Your task to perform on an android device: Open Yahoo.com Image 0: 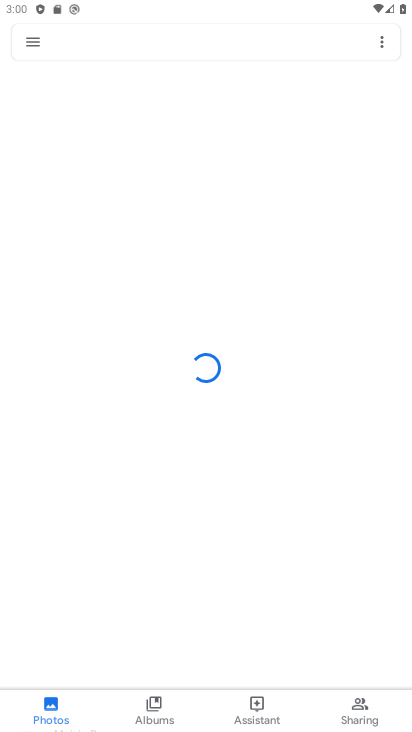
Step 0: press home button
Your task to perform on an android device: Open Yahoo.com Image 1: 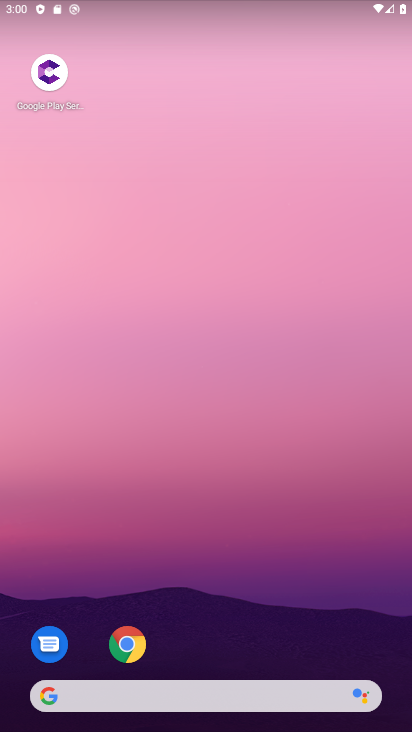
Step 1: click (130, 634)
Your task to perform on an android device: Open Yahoo.com Image 2: 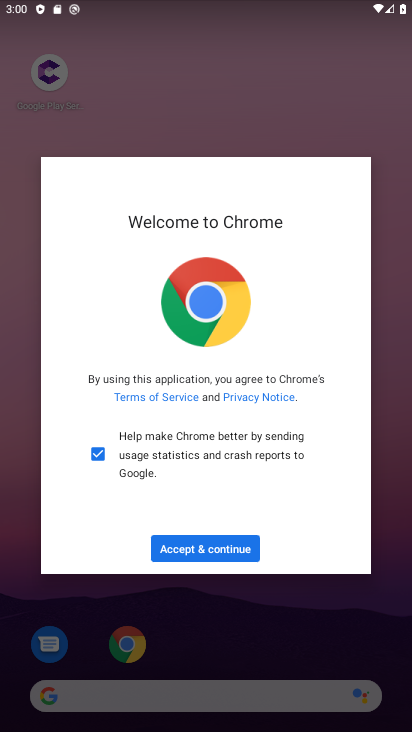
Step 2: click (205, 554)
Your task to perform on an android device: Open Yahoo.com Image 3: 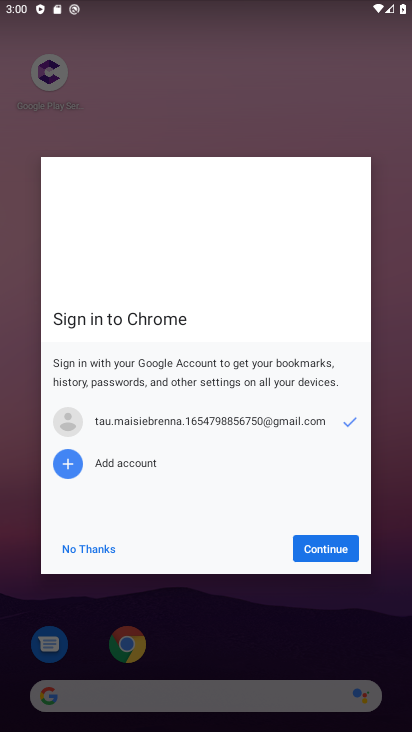
Step 3: click (331, 545)
Your task to perform on an android device: Open Yahoo.com Image 4: 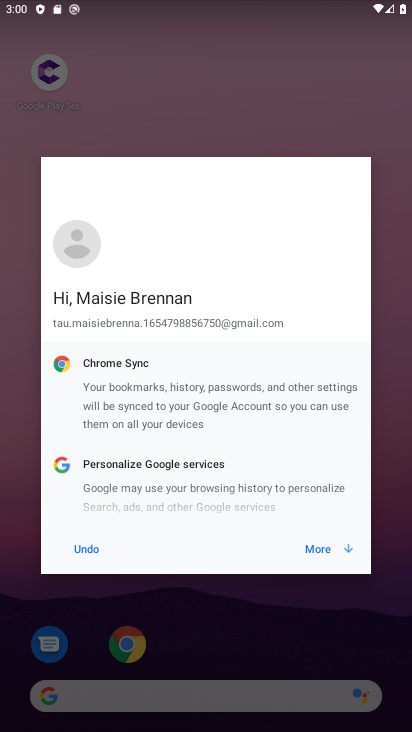
Step 4: click (331, 545)
Your task to perform on an android device: Open Yahoo.com Image 5: 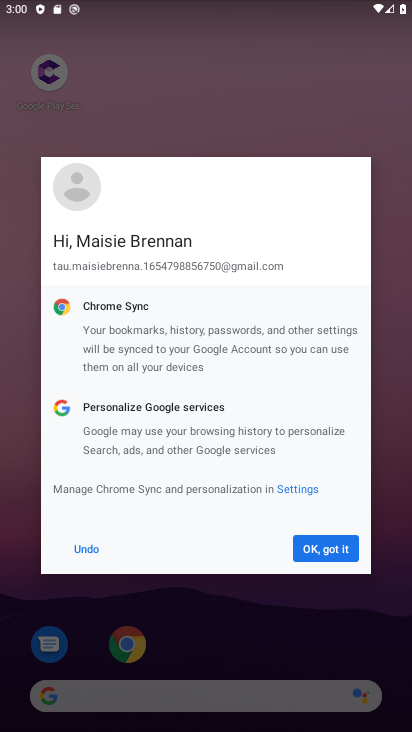
Step 5: click (331, 545)
Your task to perform on an android device: Open Yahoo.com Image 6: 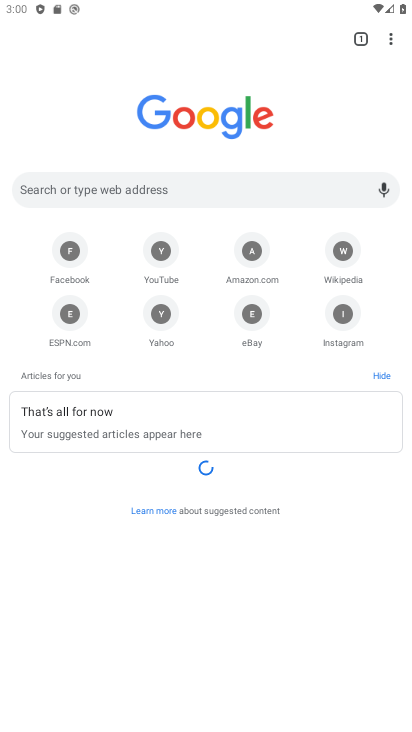
Step 6: click (157, 314)
Your task to perform on an android device: Open Yahoo.com Image 7: 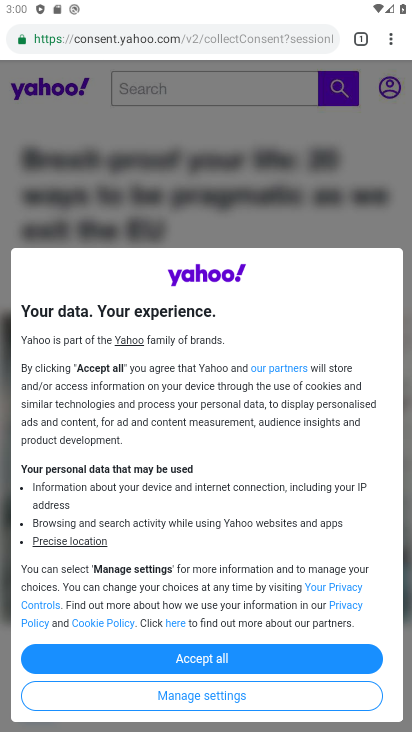
Step 7: task complete